Your task to perform on an android device: allow cookies in the chrome app Image 0: 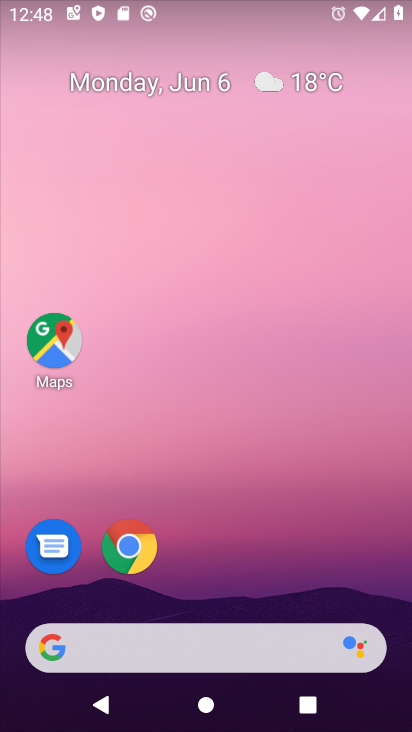
Step 0: drag from (243, 580) to (155, 146)
Your task to perform on an android device: allow cookies in the chrome app Image 1: 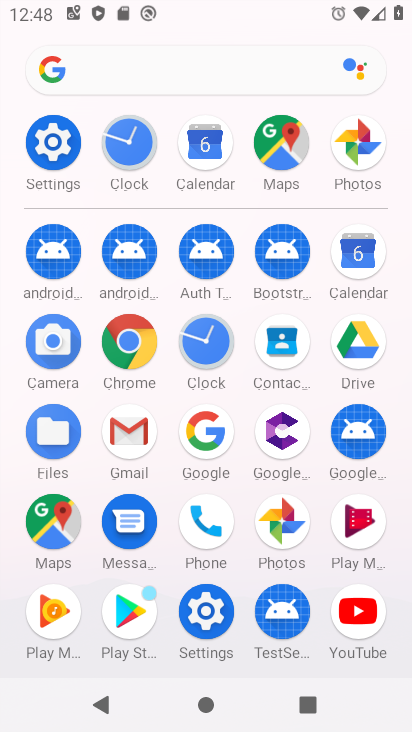
Step 1: click (119, 352)
Your task to perform on an android device: allow cookies in the chrome app Image 2: 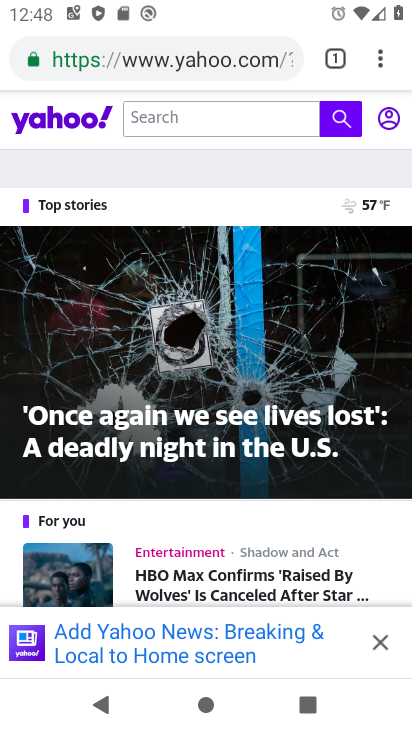
Step 2: drag from (375, 59) to (220, 568)
Your task to perform on an android device: allow cookies in the chrome app Image 3: 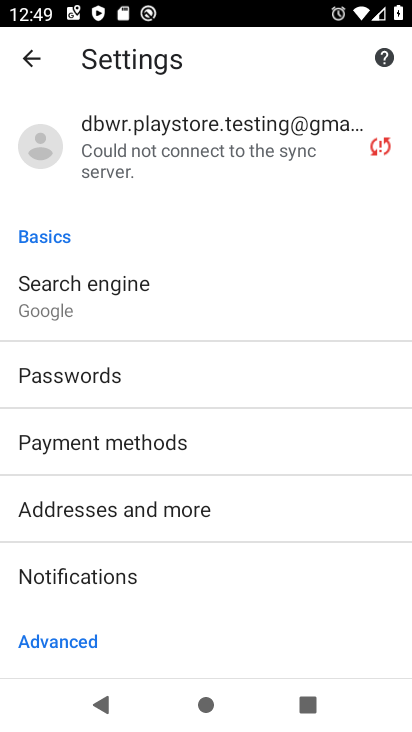
Step 3: drag from (195, 641) to (216, 184)
Your task to perform on an android device: allow cookies in the chrome app Image 4: 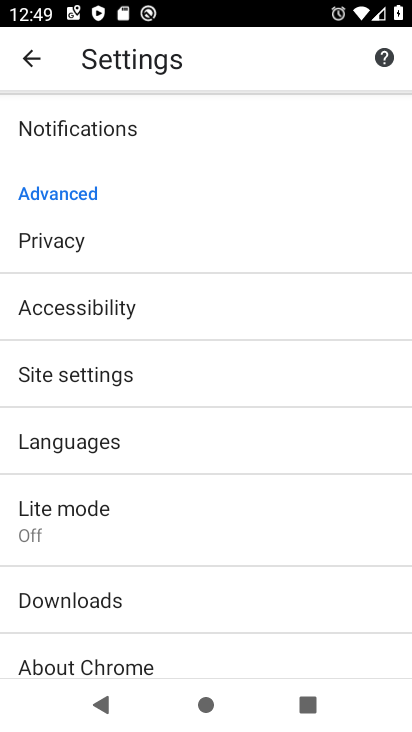
Step 4: click (88, 366)
Your task to perform on an android device: allow cookies in the chrome app Image 5: 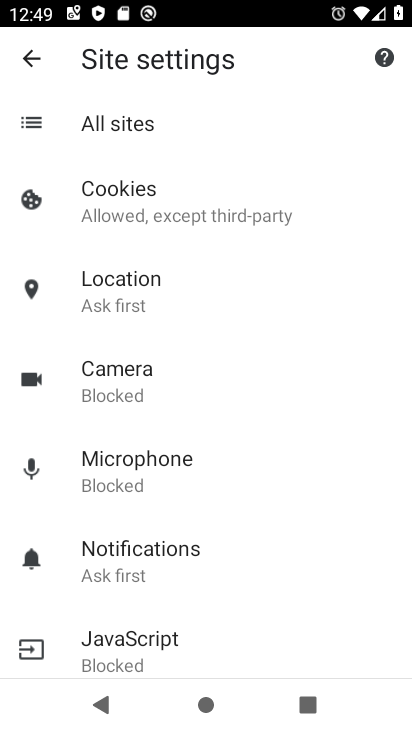
Step 5: click (134, 204)
Your task to perform on an android device: allow cookies in the chrome app Image 6: 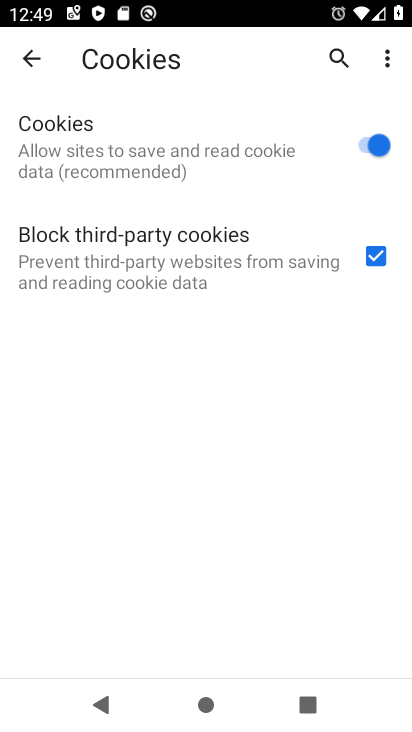
Step 6: task complete